Your task to perform on an android device: turn vacation reply on in the gmail app Image 0: 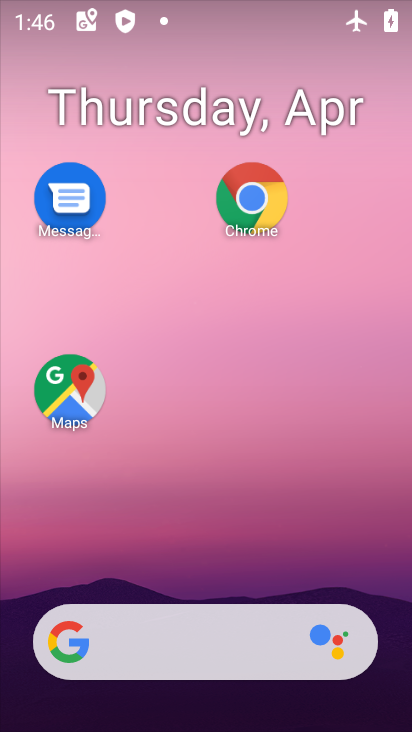
Step 0: drag from (194, 593) to (262, 50)
Your task to perform on an android device: turn vacation reply on in the gmail app Image 1: 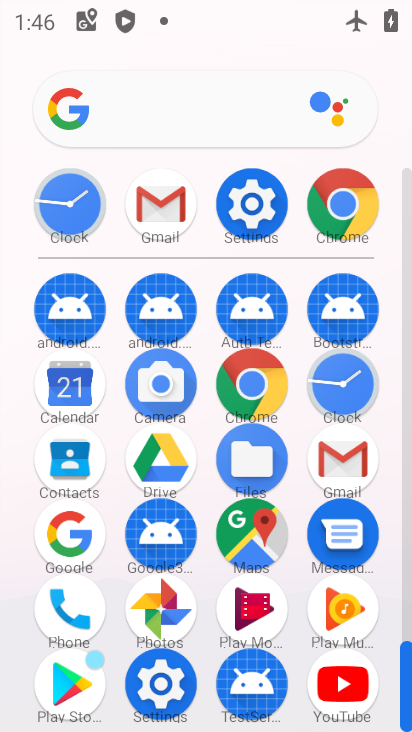
Step 1: click (344, 468)
Your task to perform on an android device: turn vacation reply on in the gmail app Image 2: 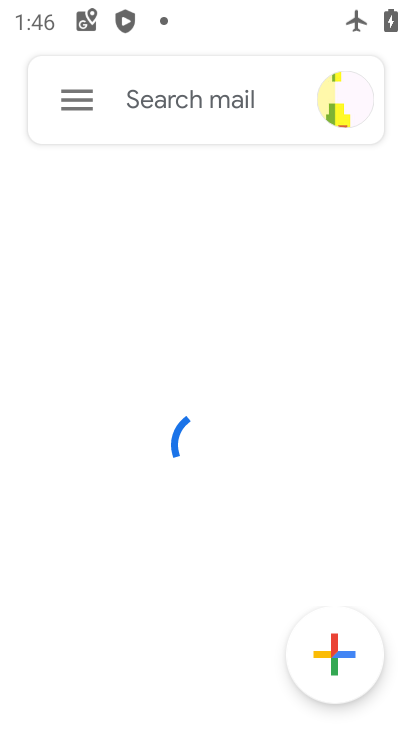
Step 2: click (68, 96)
Your task to perform on an android device: turn vacation reply on in the gmail app Image 3: 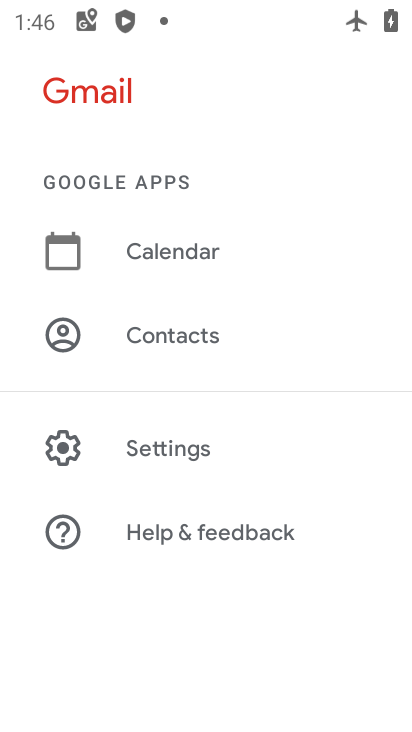
Step 3: click (141, 449)
Your task to perform on an android device: turn vacation reply on in the gmail app Image 4: 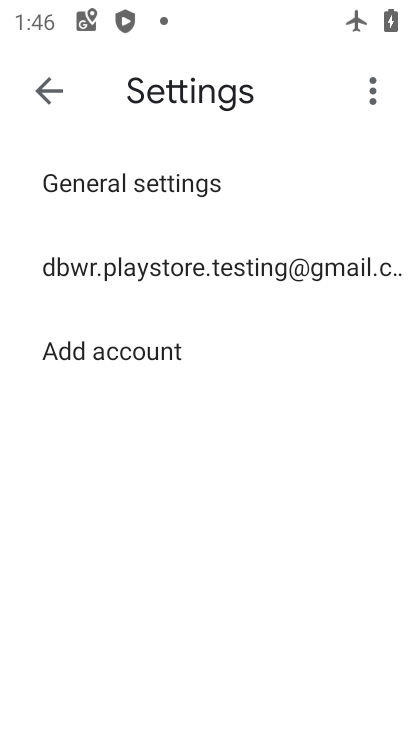
Step 4: click (122, 265)
Your task to perform on an android device: turn vacation reply on in the gmail app Image 5: 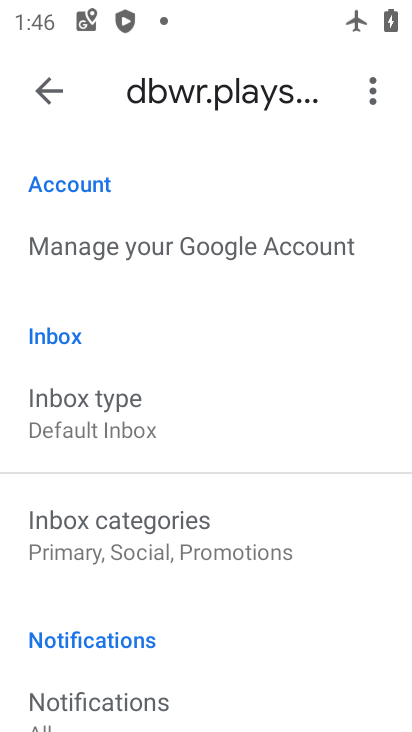
Step 5: drag from (127, 494) to (61, 43)
Your task to perform on an android device: turn vacation reply on in the gmail app Image 6: 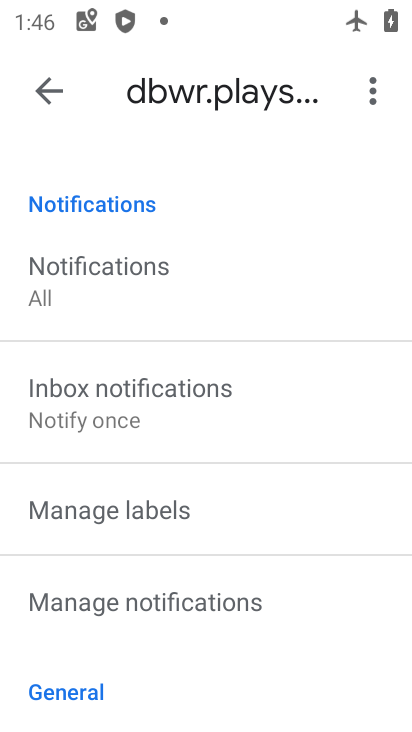
Step 6: drag from (219, 614) to (150, 159)
Your task to perform on an android device: turn vacation reply on in the gmail app Image 7: 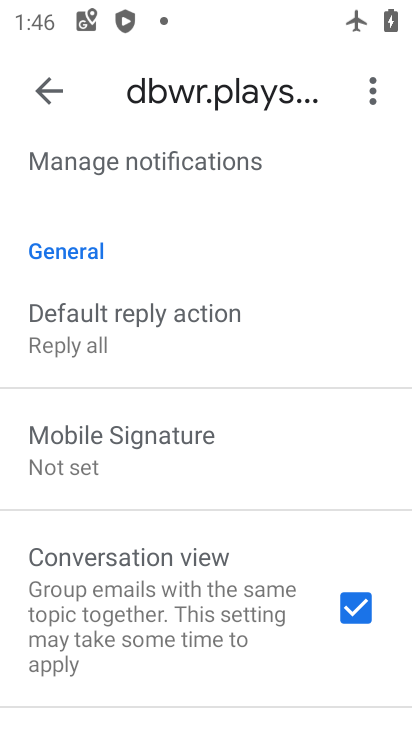
Step 7: drag from (165, 548) to (96, 61)
Your task to perform on an android device: turn vacation reply on in the gmail app Image 8: 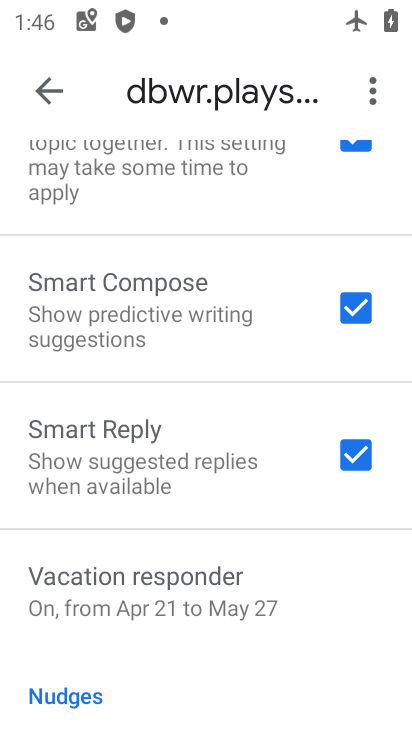
Step 8: click (209, 615)
Your task to perform on an android device: turn vacation reply on in the gmail app Image 9: 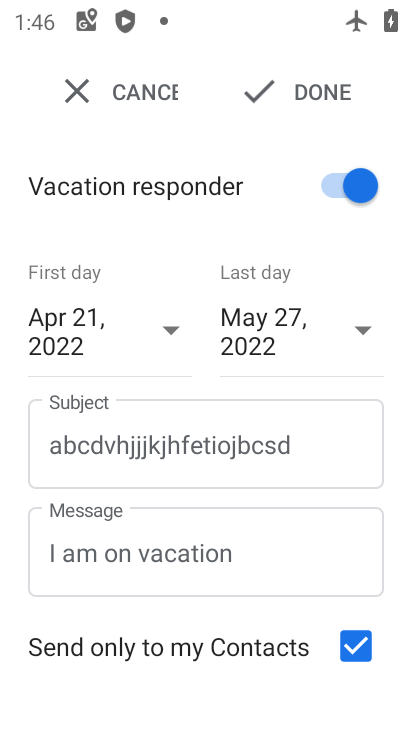
Step 9: drag from (247, 521) to (228, 366)
Your task to perform on an android device: turn vacation reply on in the gmail app Image 10: 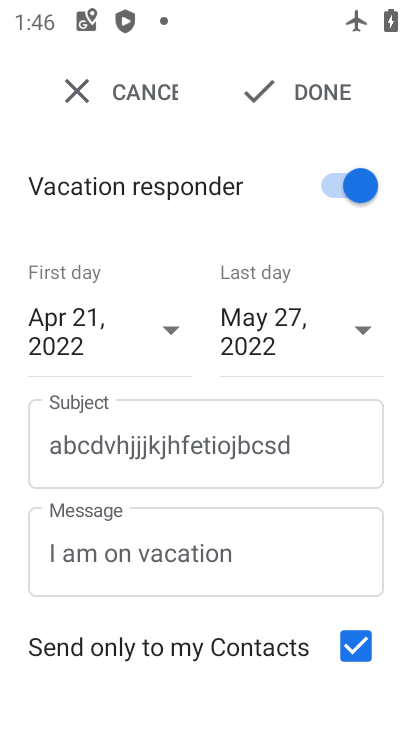
Step 10: click (299, 100)
Your task to perform on an android device: turn vacation reply on in the gmail app Image 11: 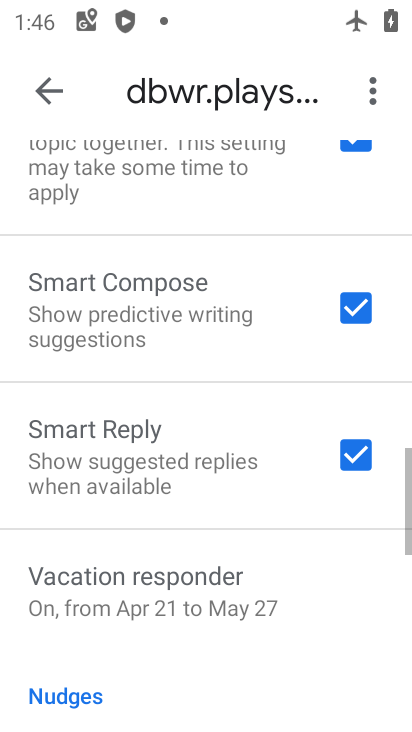
Step 11: task complete